Your task to perform on an android device: make emails show in primary in the gmail app Image 0: 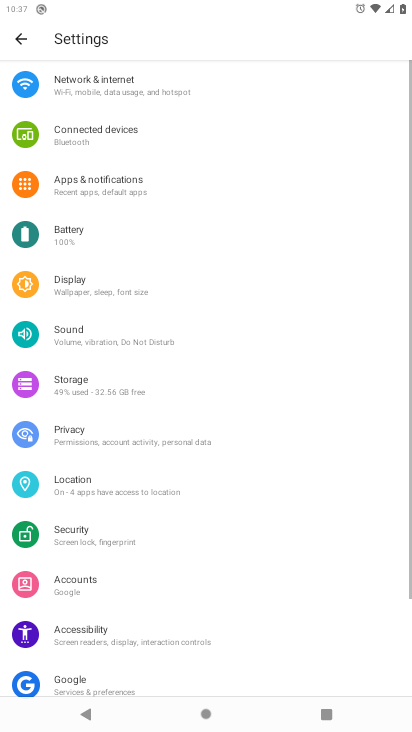
Step 0: press home button
Your task to perform on an android device: make emails show in primary in the gmail app Image 1: 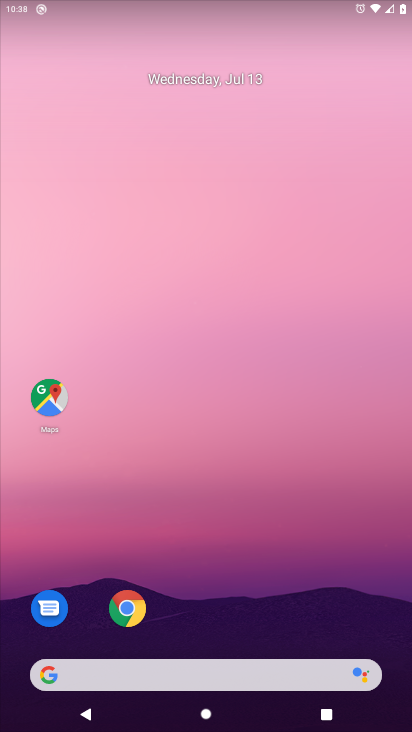
Step 1: drag from (191, 228) to (280, 57)
Your task to perform on an android device: make emails show in primary in the gmail app Image 2: 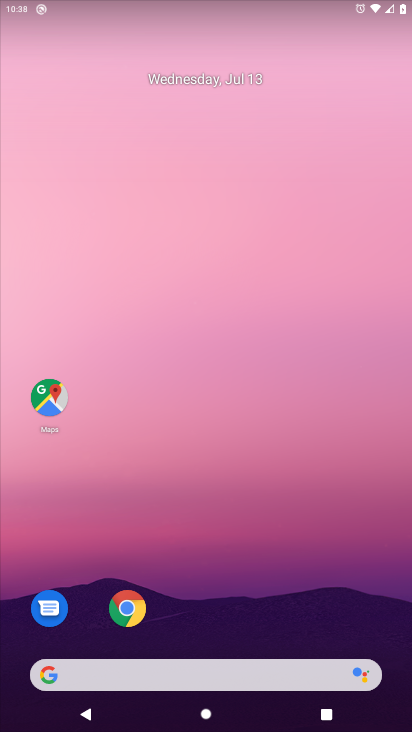
Step 2: drag from (54, 625) to (273, 59)
Your task to perform on an android device: make emails show in primary in the gmail app Image 3: 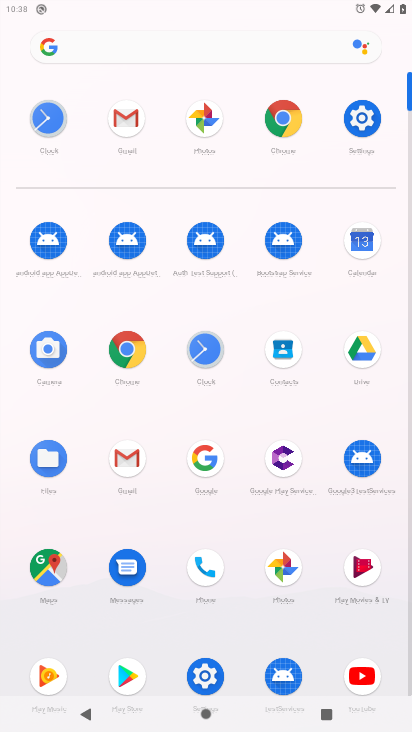
Step 3: click (110, 117)
Your task to perform on an android device: make emails show in primary in the gmail app Image 4: 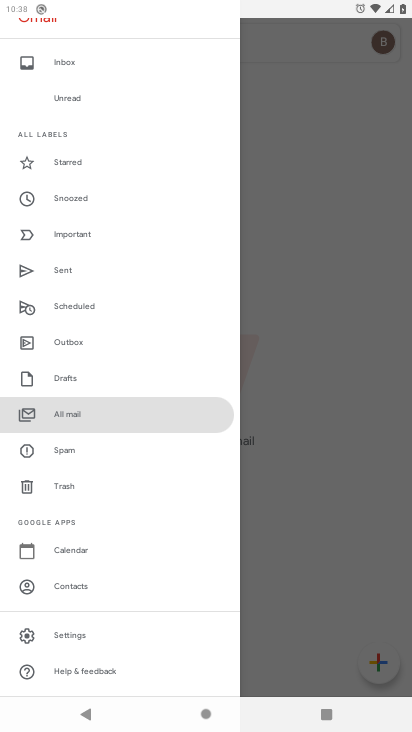
Step 4: click (106, 61)
Your task to perform on an android device: make emails show in primary in the gmail app Image 5: 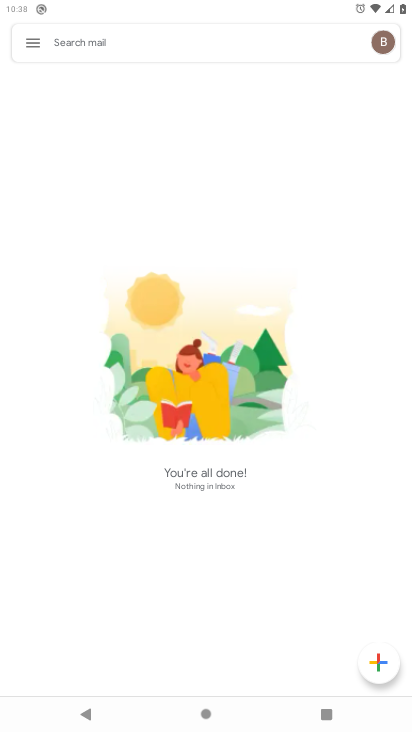
Step 5: task complete